Your task to perform on an android device: change the clock display to show seconds Image 0: 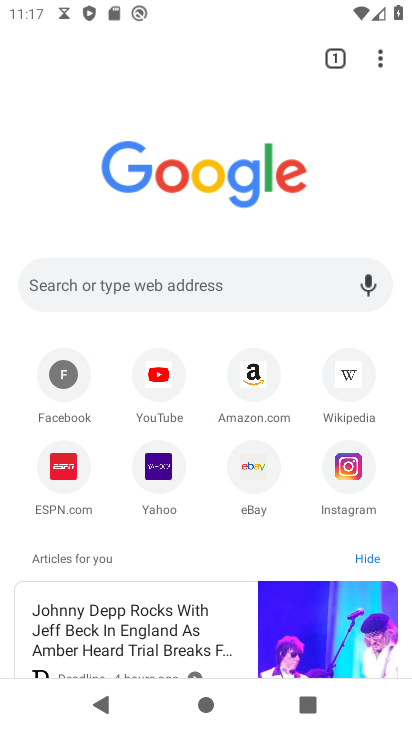
Step 0: press home button
Your task to perform on an android device: change the clock display to show seconds Image 1: 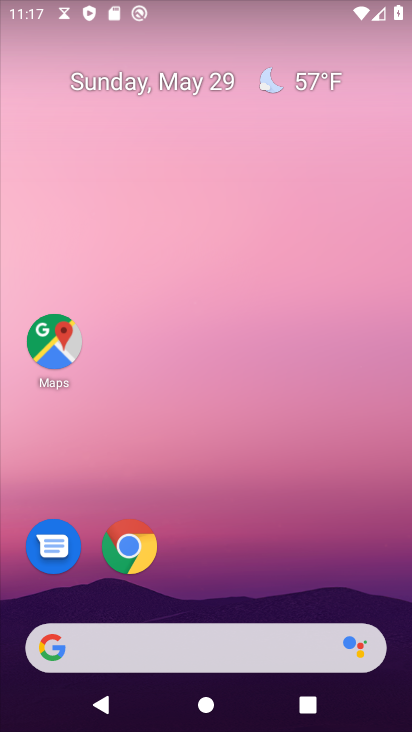
Step 1: drag from (144, 645) to (364, 8)
Your task to perform on an android device: change the clock display to show seconds Image 2: 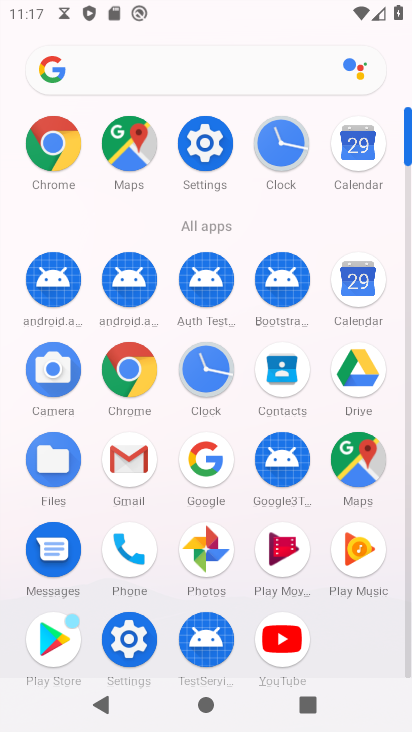
Step 2: click (284, 153)
Your task to perform on an android device: change the clock display to show seconds Image 3: 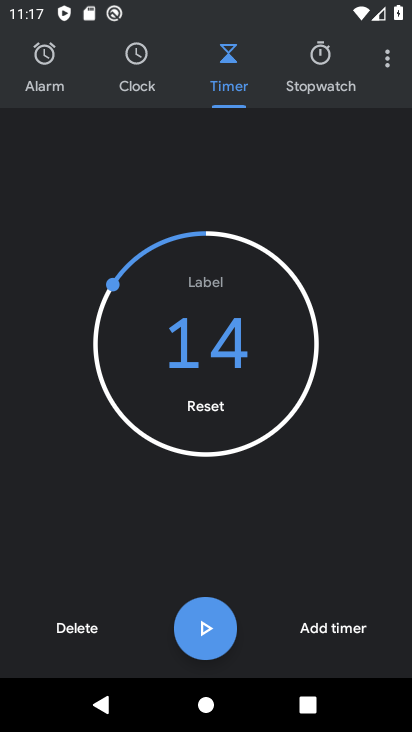
Step 3: click (391, 62)
Your task to perform on an android device: change the clock display to show seconds Image 4: 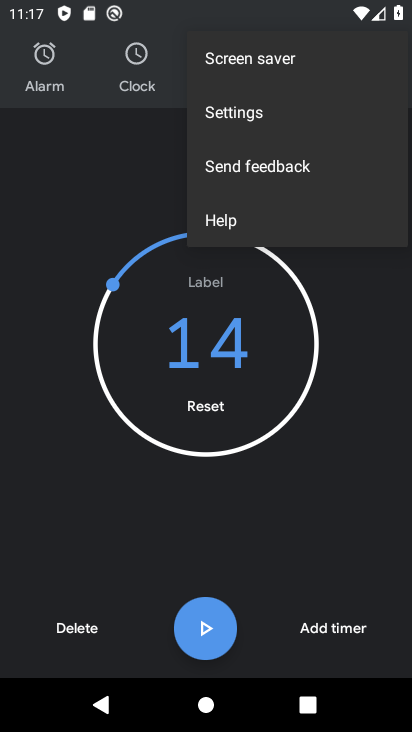
Step 4: click (261, 112)
Your task to perform on an android device: change the clock display to show seconds Image 5: 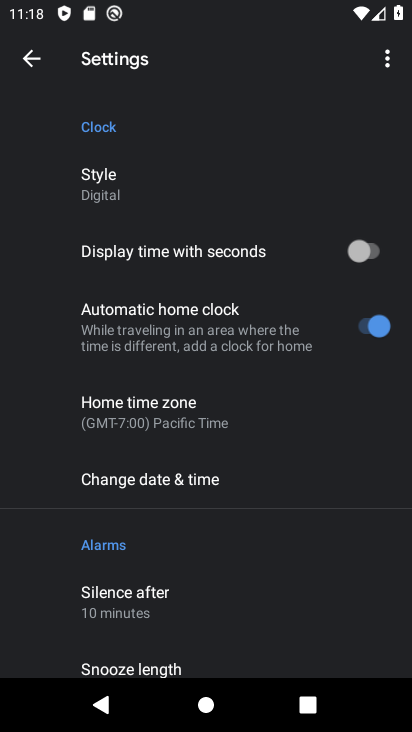
Step 5: click (373, 255)
Your task to perform on an android device: change the clock display to show seconds Image 6: 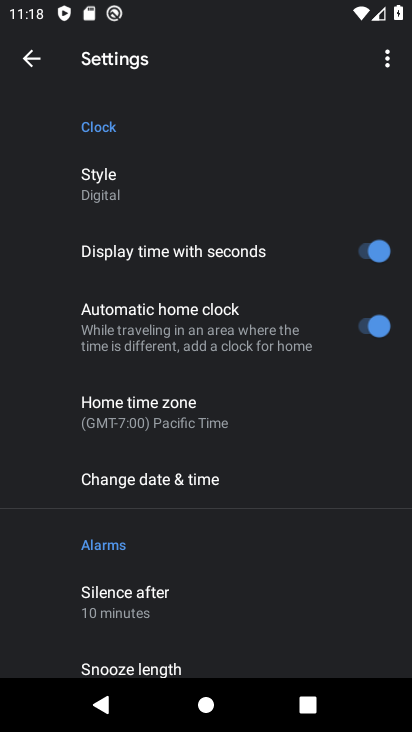
Step 6: task complete